Your task to perform on an android device: Open Android settings Image 0: 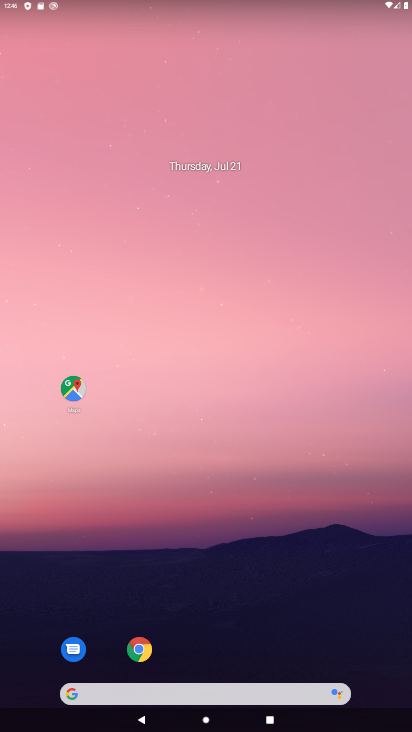
Step 0: drag from (245, 687) to (175, 179)
Your task to perform on an android device: Open Android settings Image 1: 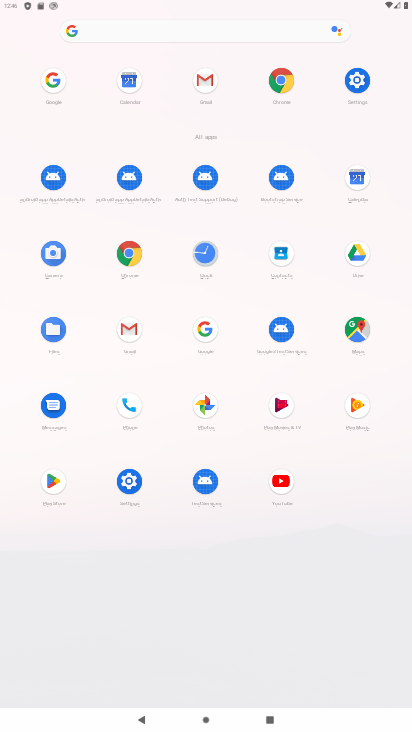
Step 1: click (353, 93)
Your task to perform on an android device: Open Android settings Image 2: 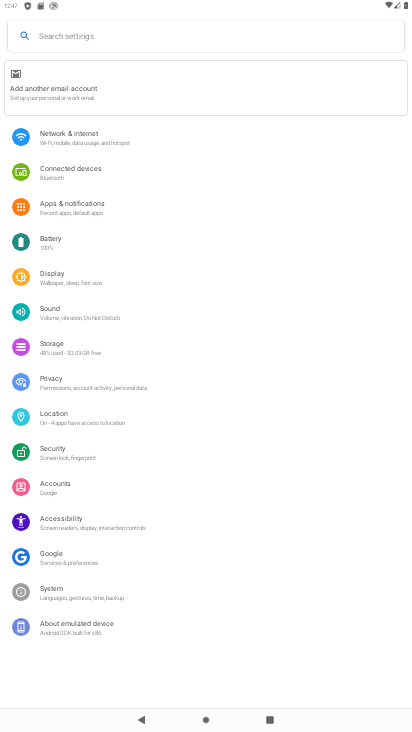
Step 2: task complete